Your task to perform on an android device: turn on showing notifications on the lock screen Image 0: 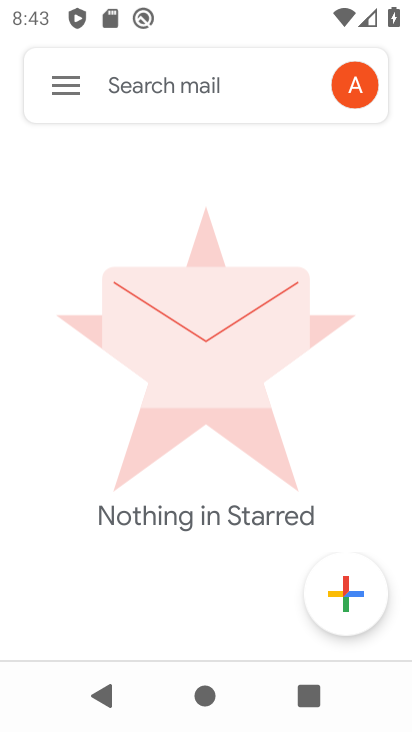
Step 0: press home button
Your task to perform on an android device: turn on showing notifications on the lock screen Image 1: 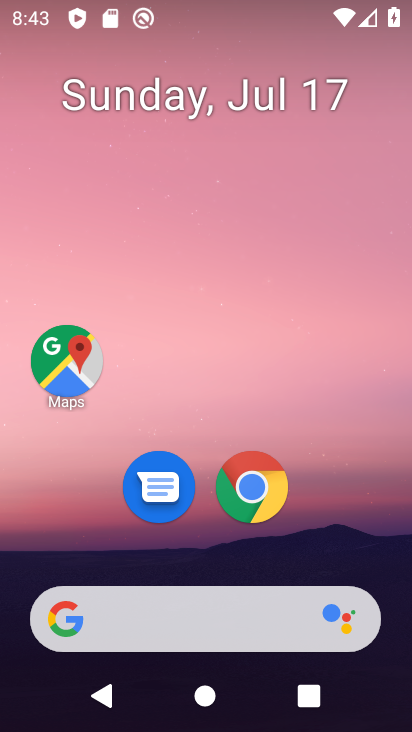
Step 1: drag from (329, 530) to (327, 118)
Your task to perform on an android device: turn on showing notifications on the lock screen Image 2: 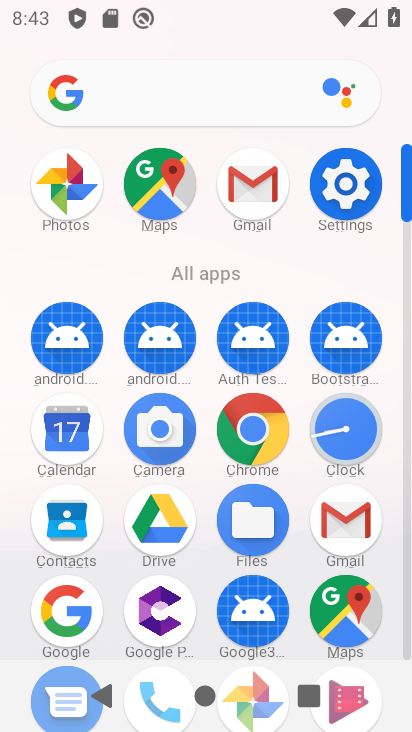
Step 2: click (343, 183)
Your task to perform on an android device: turn on showing notifications on the lock screen Image 3: 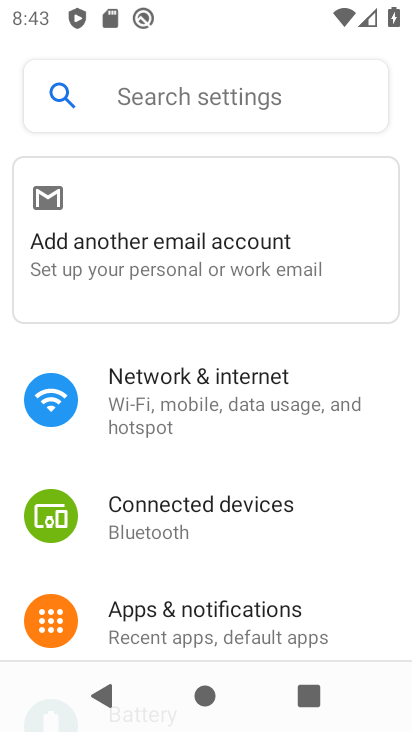
Step 3: click (221, 619)
Your task to perform on an android device: turn on showing notifications on the lock screen Image 4: 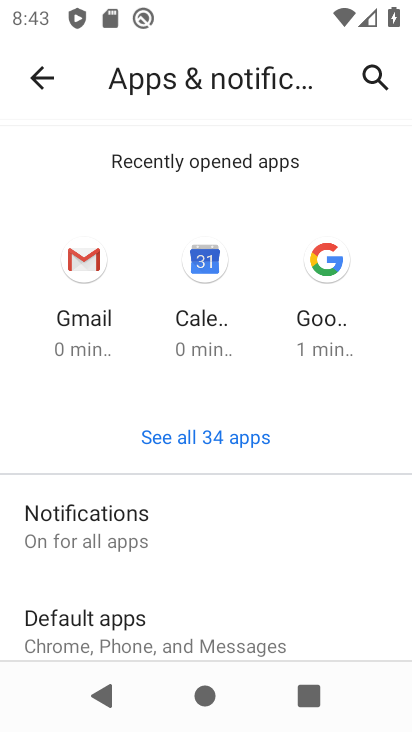
Step 4: click (78, 521)
Your task to perform on an android device: turn on showing notifications on the lock screen Image 5: 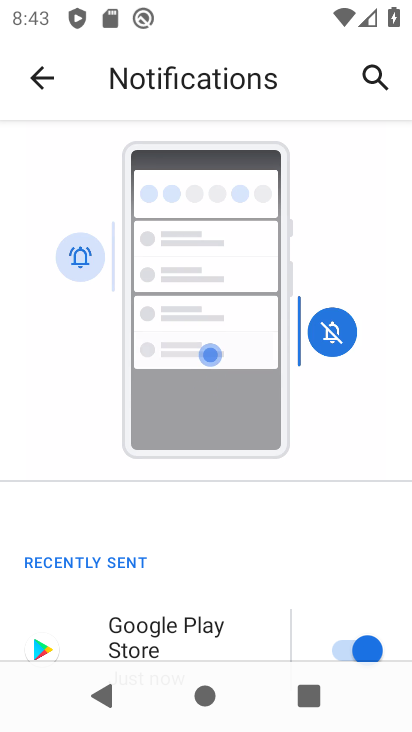
Step 5: drag from (227, 583) to (273, 161)
Your task to perform on an android device: turn on showing notifications on the lock screen Image 6: 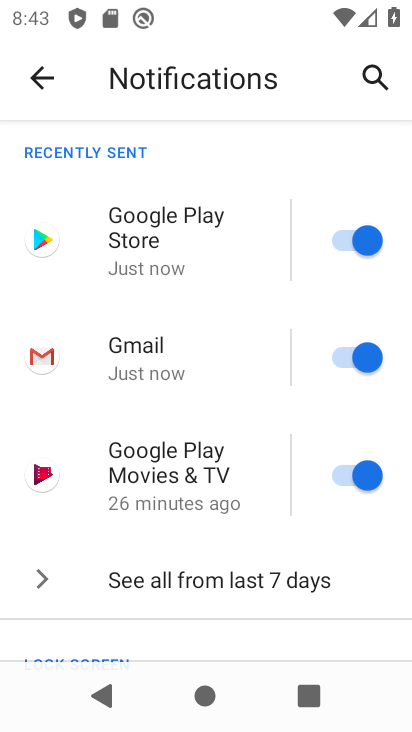
Step 6: drag from (127, 648) to (125, 438)
Your task to perform on an android device: turn on showing notifications on the lock screen Image 7: 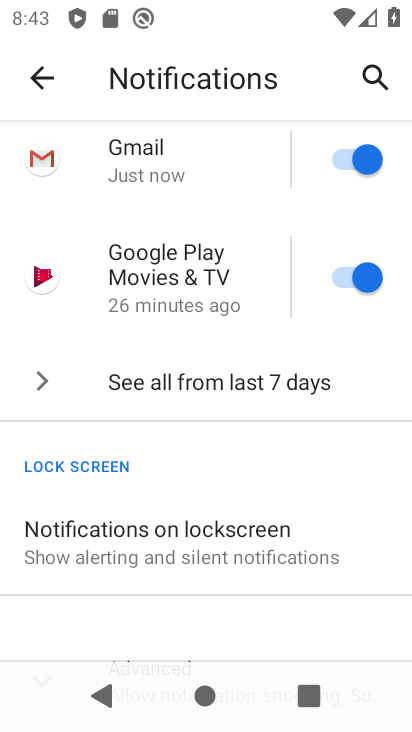
Step 7: click (108, 552)
Your task to perform on an android device: turn on showing notifications on the lock screen Image 8: 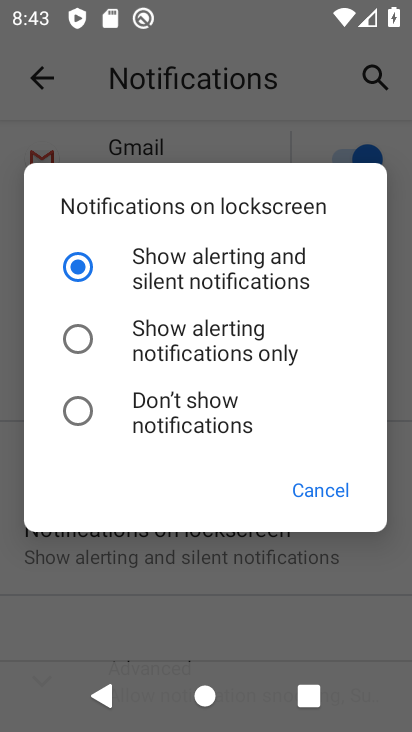
Step 8: task complete